Your task to perform on an android device: Open notification settings Image 0: 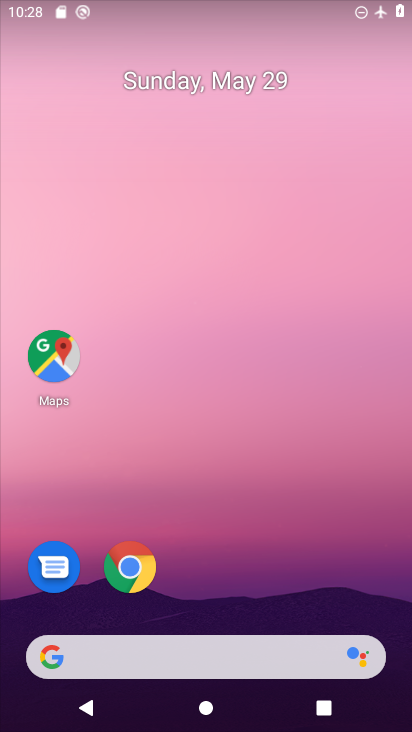
Step 0: drag from (372, 597) to (297, 113)
Your task to perform on an android device: Open notification settings Image 1: 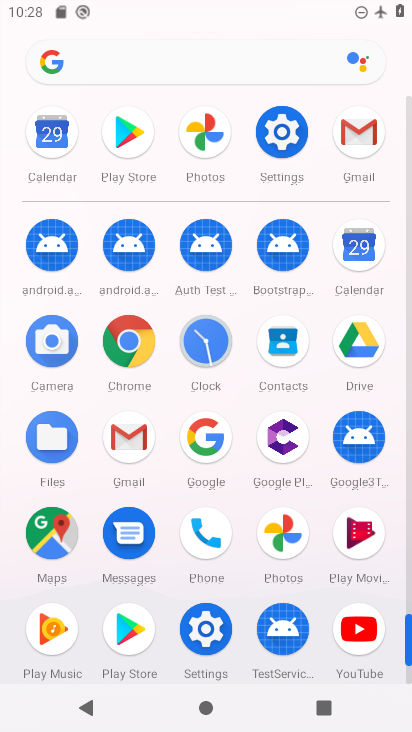
Step 1: click (206, 628)
Your task to perform on an android device: Open notification settings Image 2: 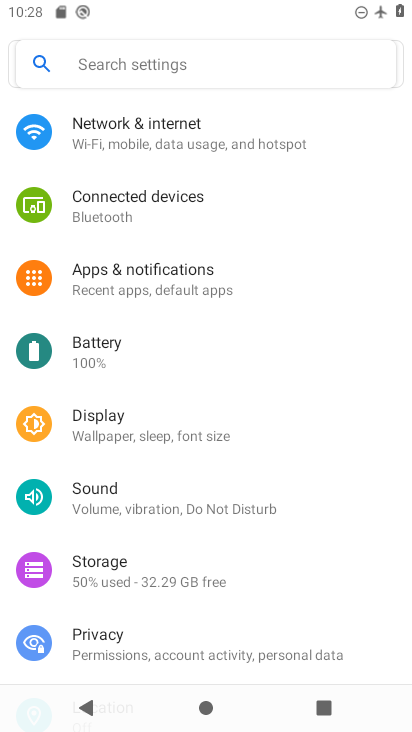
Step 2: click (168, 285)
Your task to perform on an android device: Open notification settings Image 3: 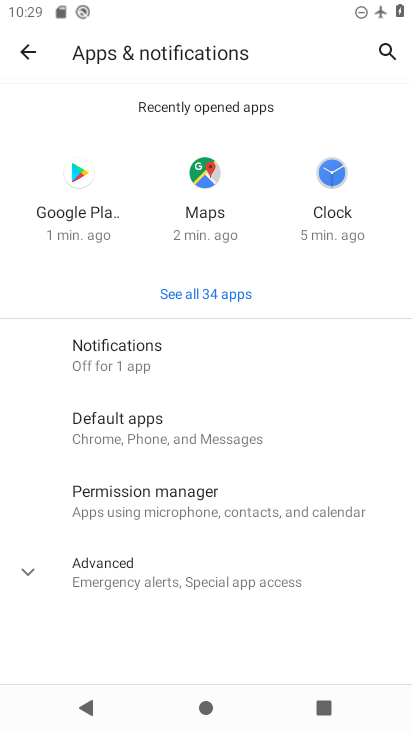
Step 3: click (24, 580)
Your task to perform on an android device: Open notification settings Image 4: 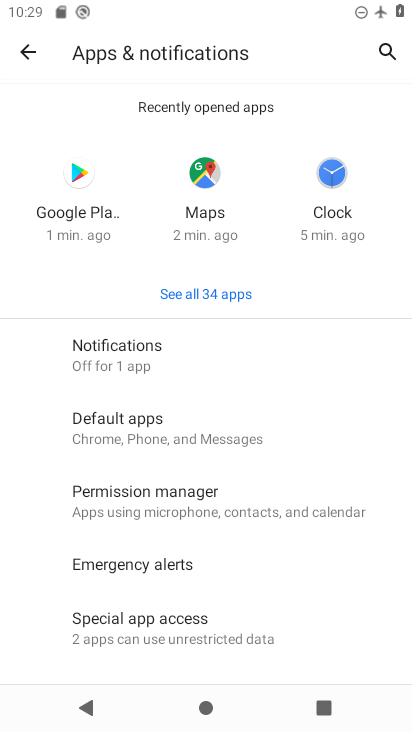
Step 4: click (110, 348)
Your task to perform on an android device: Open notification settings Image 5: 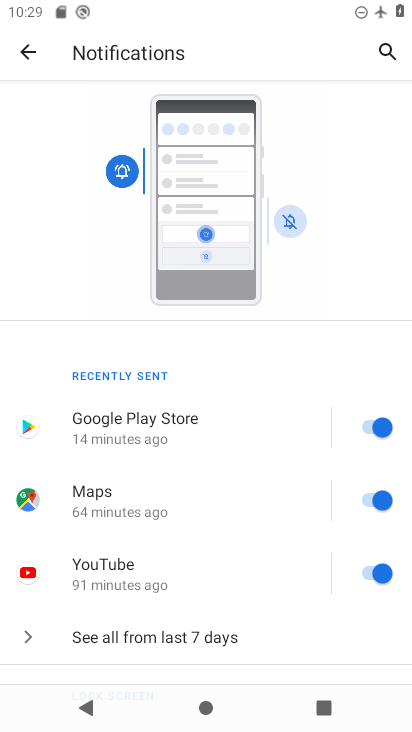
Step 5: task complete